Your task to perform on an android device: Open display settings Image 0: 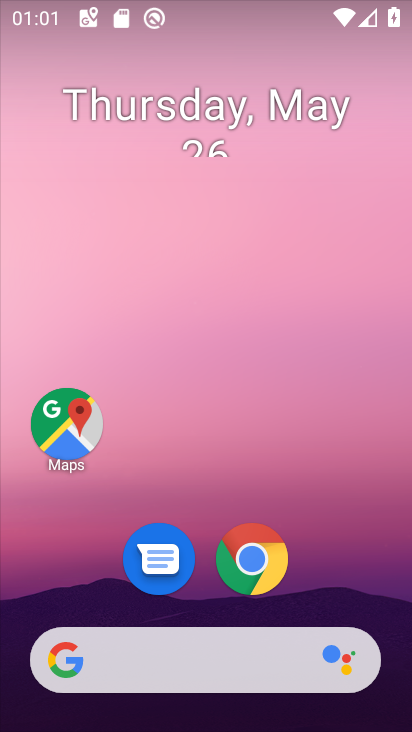
Step 0: drag from (313, 586) to (274, 137)
Your task to perform on an android device: Open display settings Image 1: 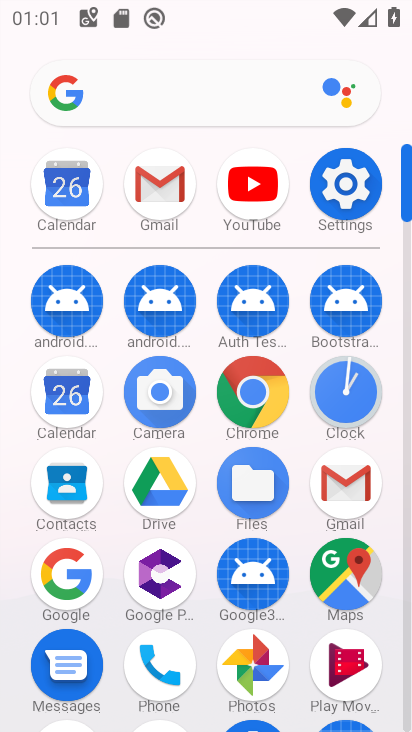
Step 1: click (334, 193)
Your task to perform on an android device: Open display settings Image 2: 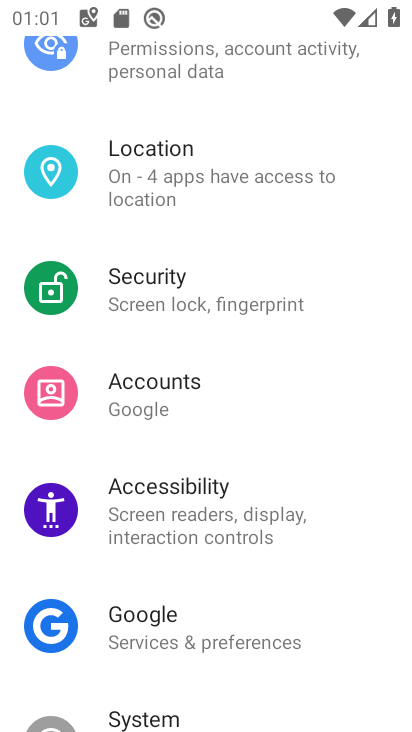
Step 2: drag from (299, 122) to (238, 522)
Your task to perform on an android device: Open display settings Image 3: 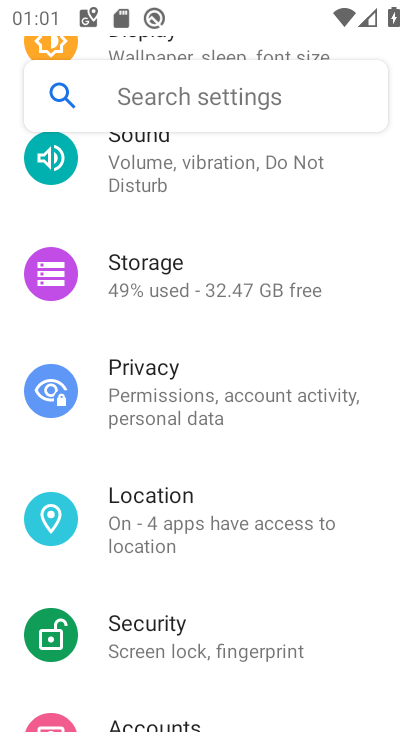
Step 3: drag from (299, 213) to (268, 625)
Your task to perform on an android device: Open display settings Image 4: 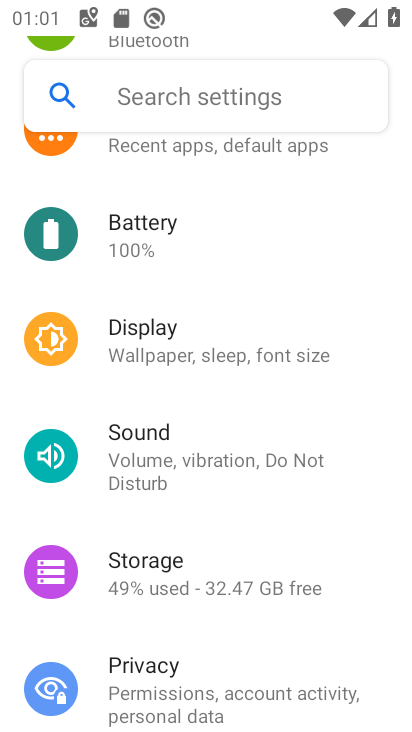
Step 4: drag from (284, 246) to (283, 691)
Your task to perform on an android device: Open display settings Image 5: 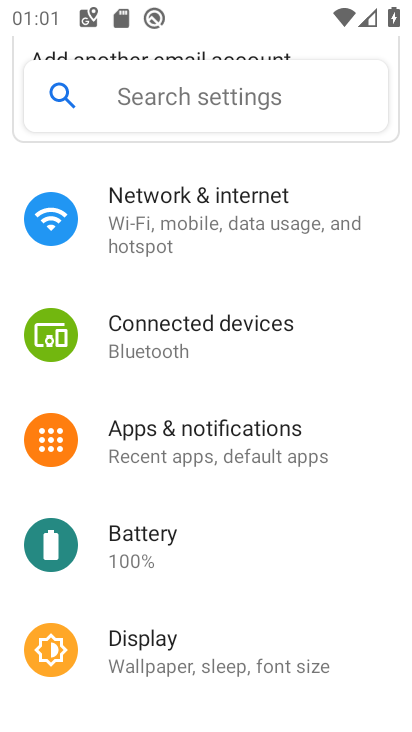
Step 5: click (155, 641)
Your task to perform on an android device: Open display settings Image 6: 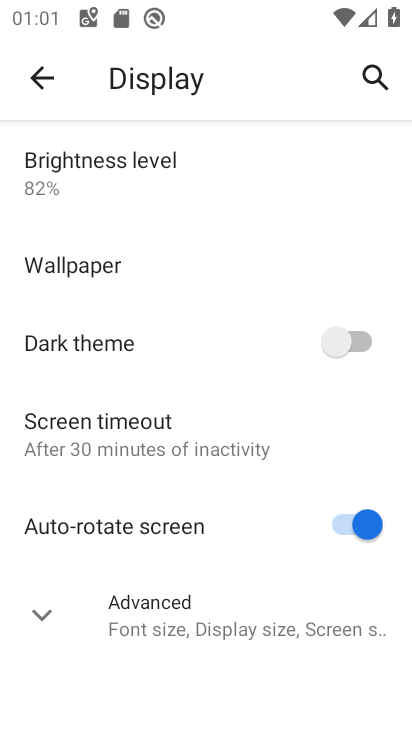
Step 6: task complete